Your task to perform on an android device: toggle notification dots Image 0: 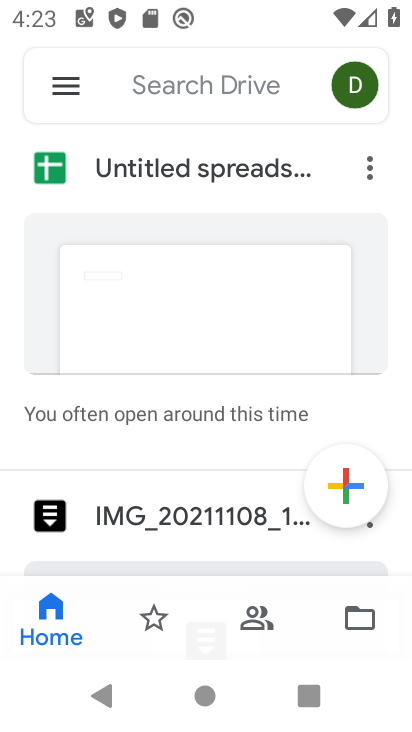
Step 0: press home button
Your task to perform on an android device: toggle notification dots Image 1: 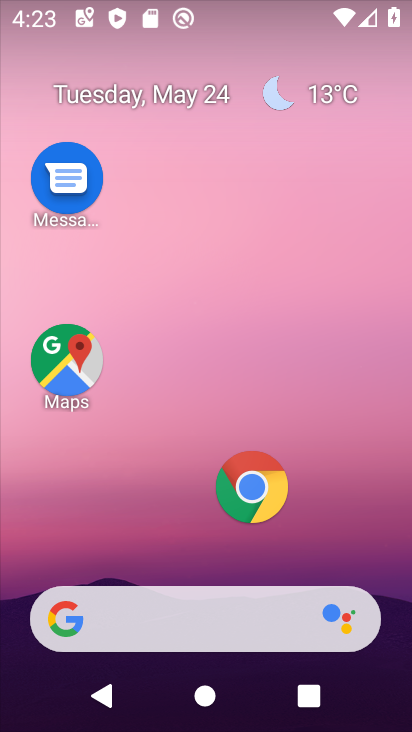
Step 1: drag from (192, 70) to (255, 0)
Your task to perform on an android device: toggle notification dots Image 2: 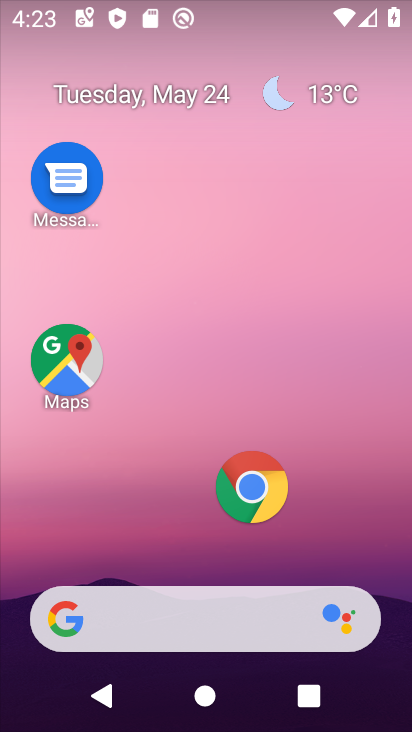
Step 2: drag from (148, 542) to (264, 7)
Your task to perform on an android device: toggle notification dots Image 3: 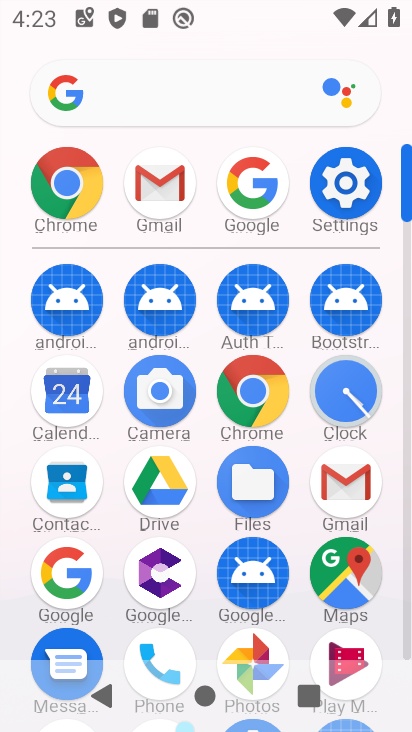
Step 3: click (334, 185)
Your task to perform on an android device: toggle notification dots Image 4: 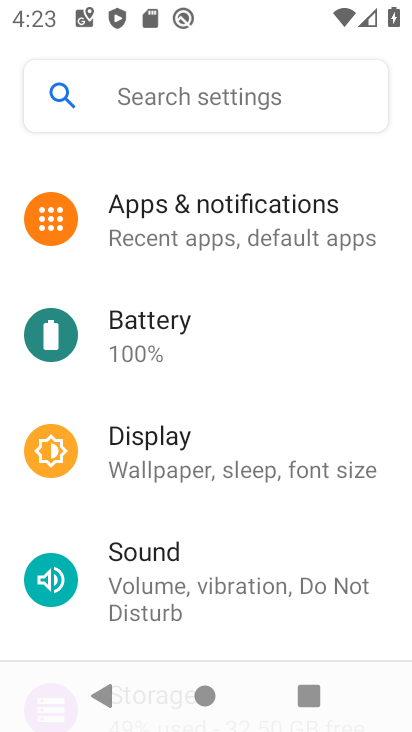
Step 4: click (204, 232)
Your task to perform on an android device: toggle notification dots Image 5: 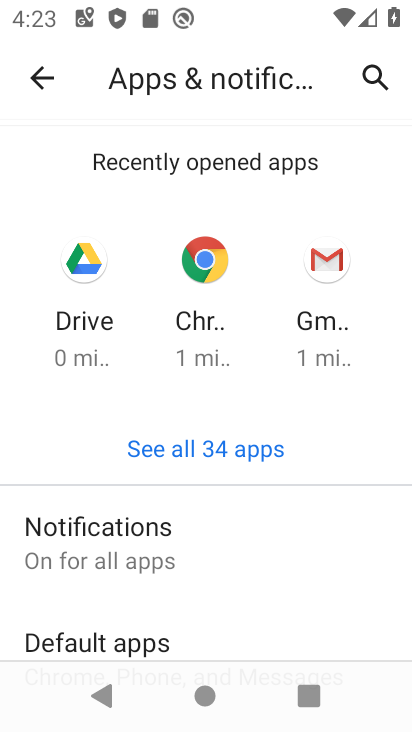
Step 5: drag from (224, 400) to (215, 146)
Your task to perform on an android device: toggle notification dots Image 6: 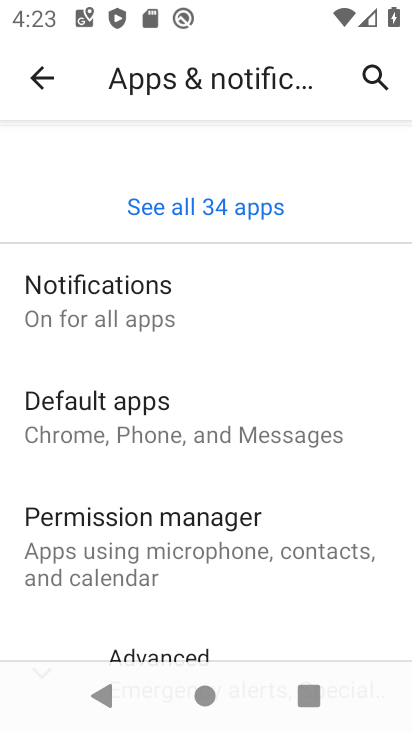
Step 6: click (173, 308)
Your task to perform on an android device: toggle notification dots Image 7: 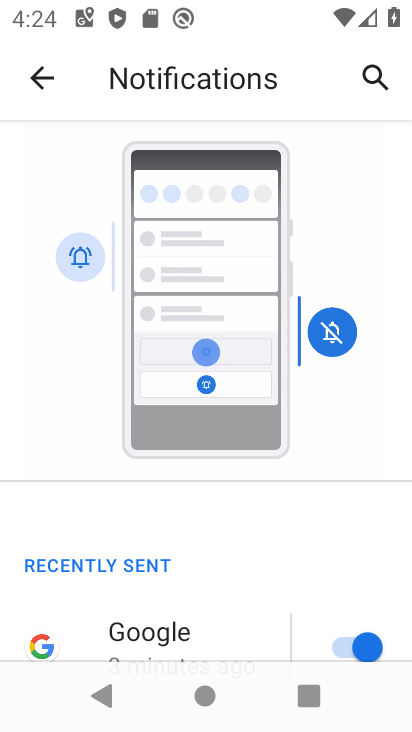
Step 7: drag from (46, 75) to (97, 285)
Your task to perform on an android device: toggle notification dots Image 8: 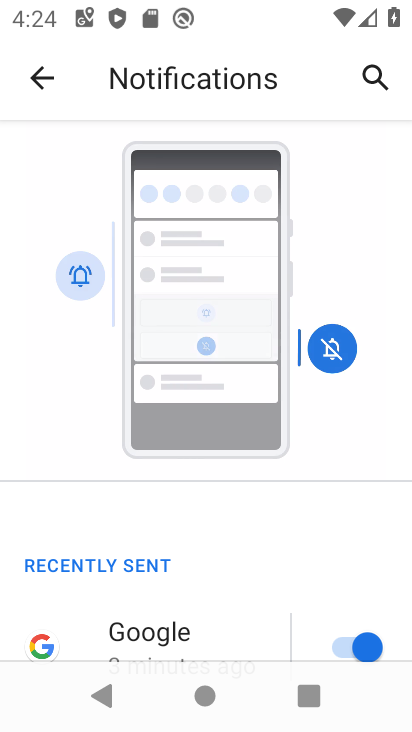
Step 8: drag from (210, 461) to (210, 419)
Your task to perform on an android device: toggle notification dots Image 9: 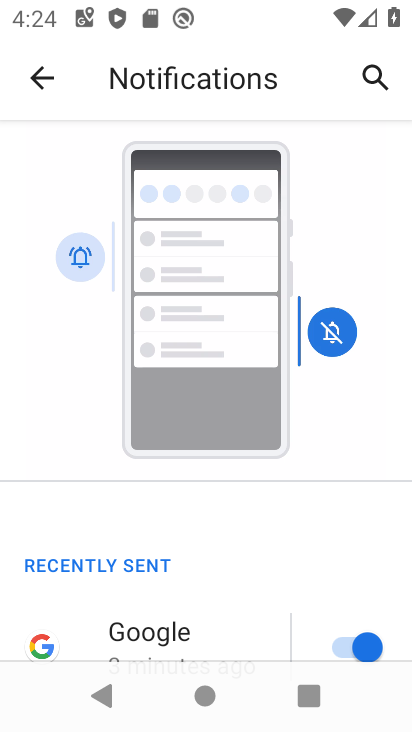
Step 9: drag from (271, 558) to (136, 14)
Your task to perform on an android device: toggle notification dots Image 10: 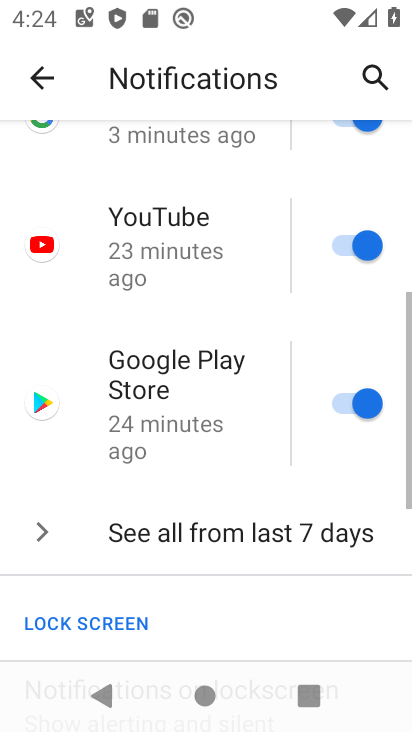
Step 10: drag from (117, 244) to (108, 201)
Your task to perform on an android device: toggle notification dots Image 11: 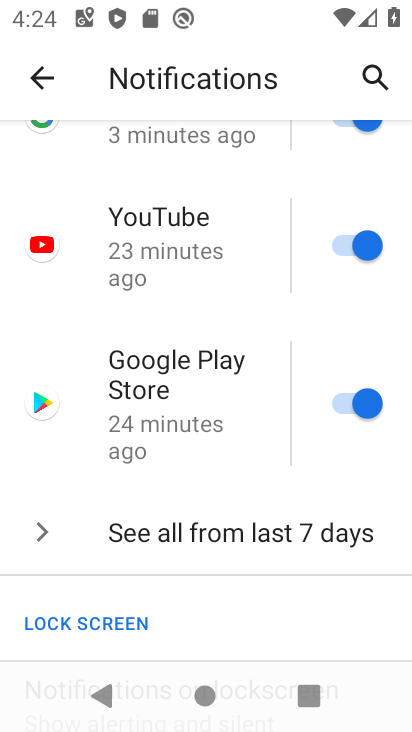
Step 11: drag from (132, 498) to (94, 224)
Your task to perform on an android device: toggle notification dots Image 12: 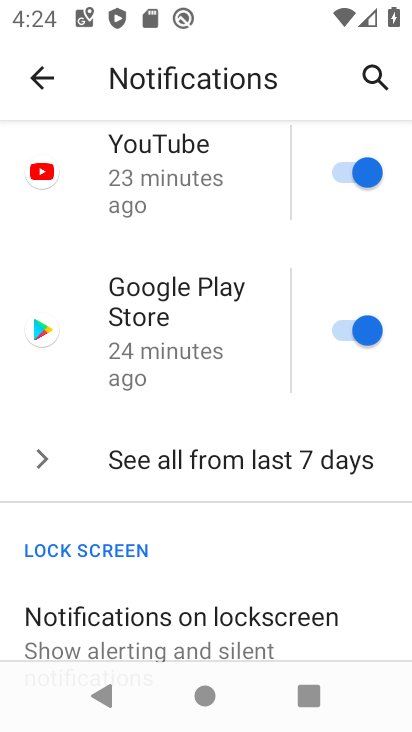
Step 12: drag from (190, 447) to (153, 262)
Your task to perform on an android device: toggle notification dots Image 13: 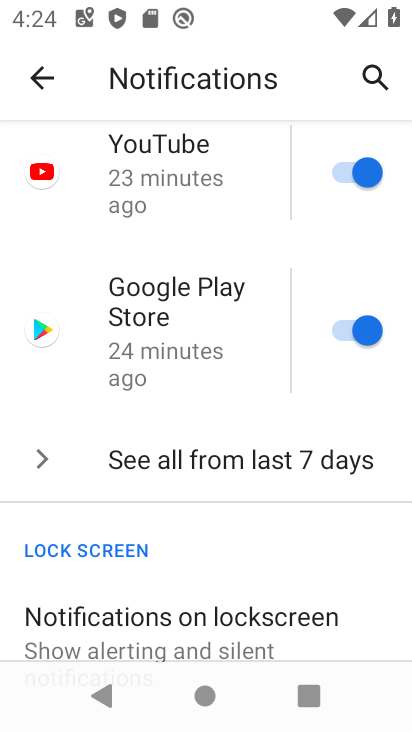
Step 13: drag from (184, 269) to (165, 118)
Your task to perform on an android device: toggle notification dots Image 14: 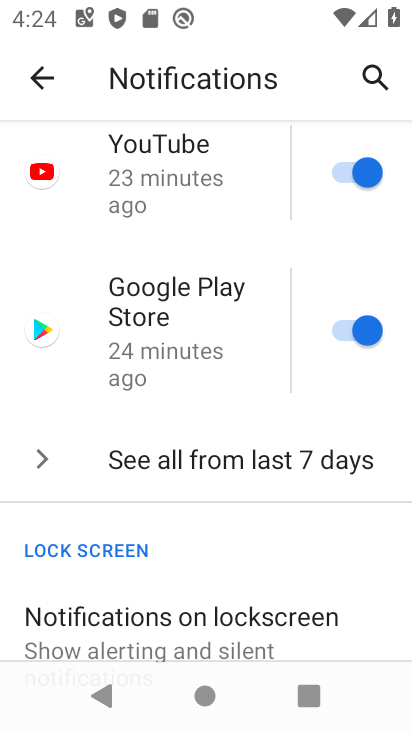
Step 14: drag from (185, 591) to (194, 184)
Your task to perform on an android device: toggle notification dots Image 15: 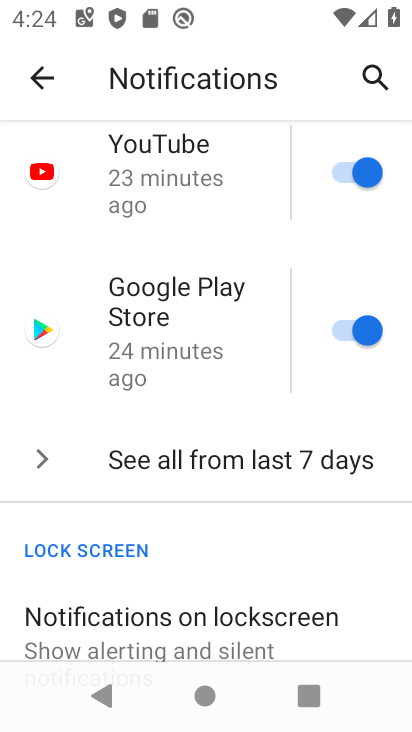
Step 15: drag from (192, 494) to (158, 278)
Your task to perform on an android device: toggle notification dots Image 16: 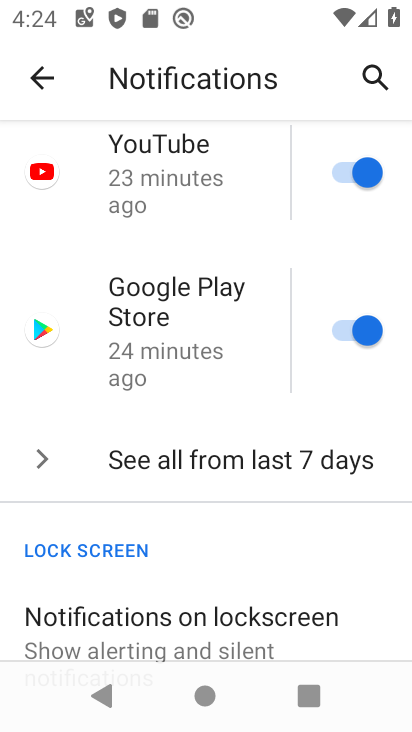
Step 16: drag from (182, 550) to (169, 343)
Your task to perform on an android device: toggle notification dots Image 17: 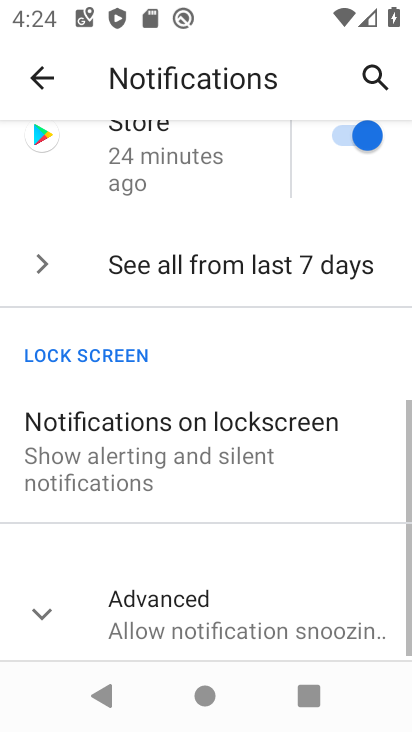
Step 17: drag from (199, 604) to (173, 281)
Your task to perform on an android device: toggle notification dots Image 18: 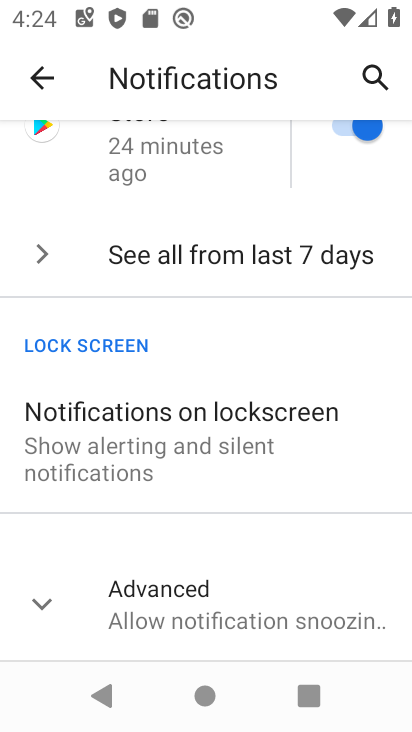
Step 18: click (150, 630)
Your task to perform on an android device: toggle notification dots Image 19: 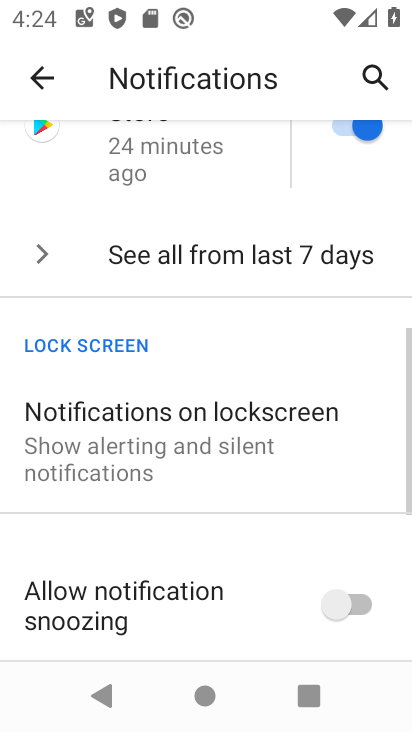
Step 19: drag from (98, 294) to (96, 250)
Your task to perform on an android device: toggle notification dots Image 20: 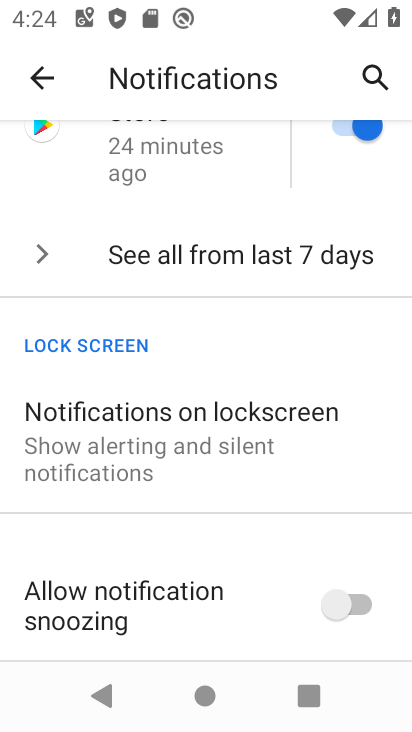
Step 20: drag from (176, 308) to (148, 218)
Your task to perform on an android device: toggle notification dots Image 21: 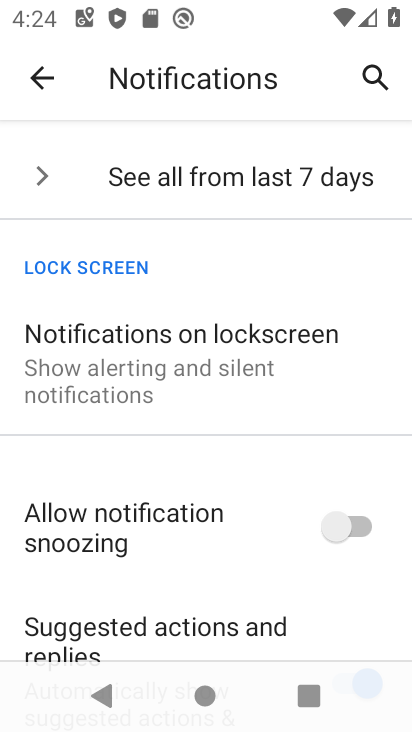
Step 21: click (126, 257)
Your task to perform on an android device: toggle notification dots Image 22: 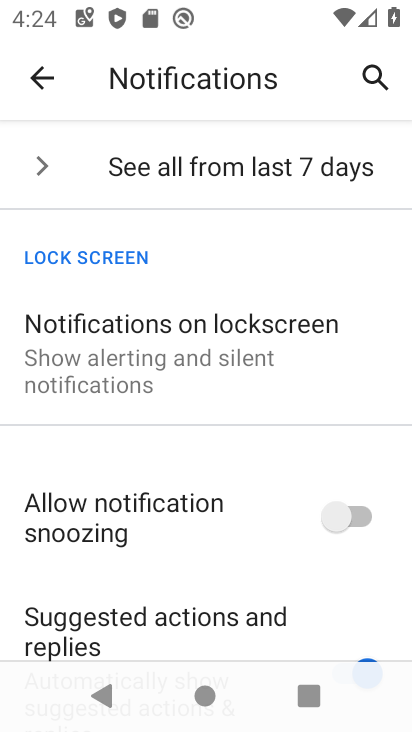
Step 22: drag from (197, 580) to (176, 408)
Your task to perform on an android device: toggle notification dots Image 23: 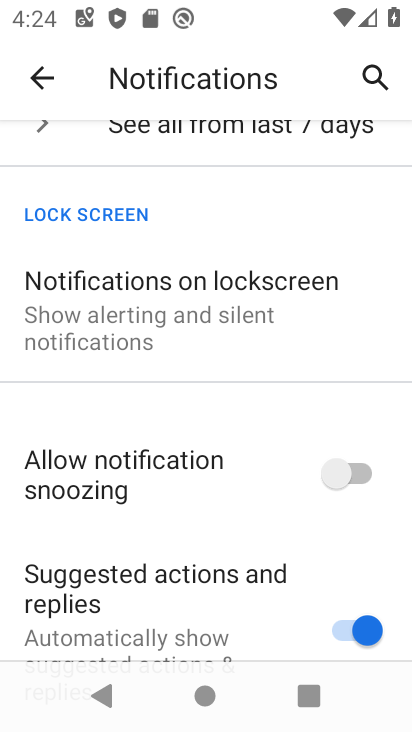
Step 23: drag from (141, 631) to (122, 269)
Your task to perform on an android device: toggle notification dots Image 24: 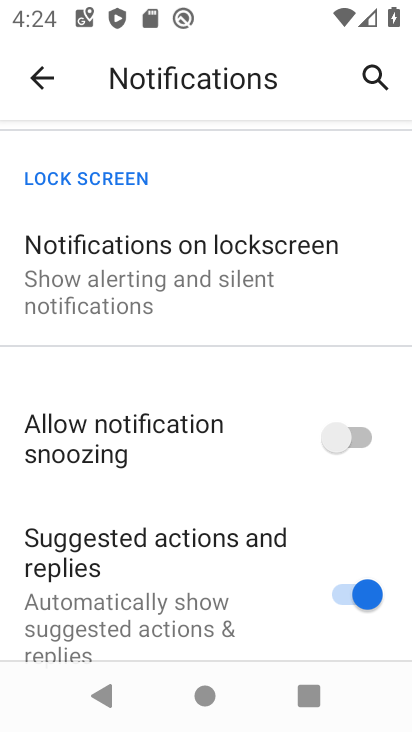
Step 24: drag from (199, 563) to (138, 322)
Your task to perform on an android device: toggle notification dots Image 25: 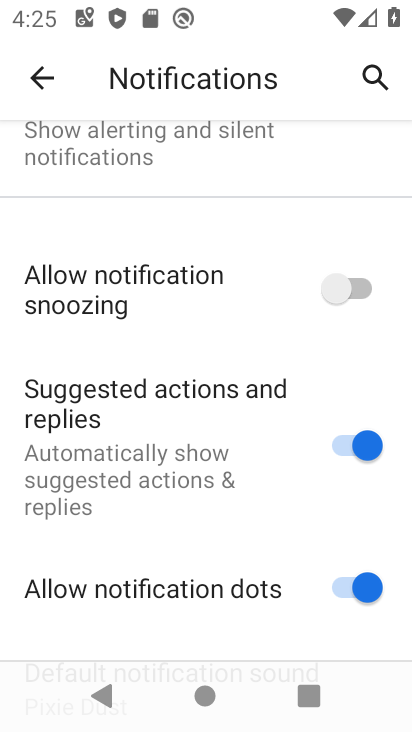
Step 25: click (366, 599)
Your task to perform on an android device: toggle notification dots Image 26: 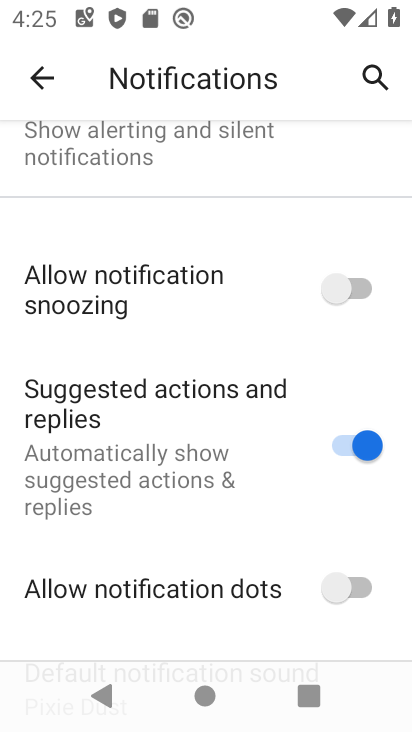
Step 26: task complete